Your task to perform on an android device: Open Amazon Image 0: 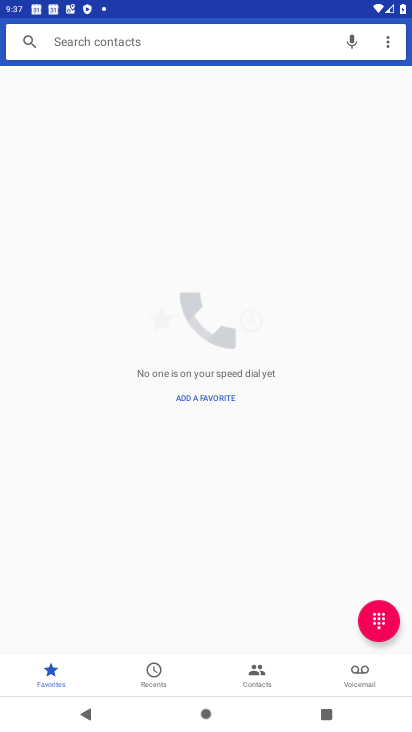
Step 0: press home button
Your task to perform on an android device: Open Amazon Image 1: 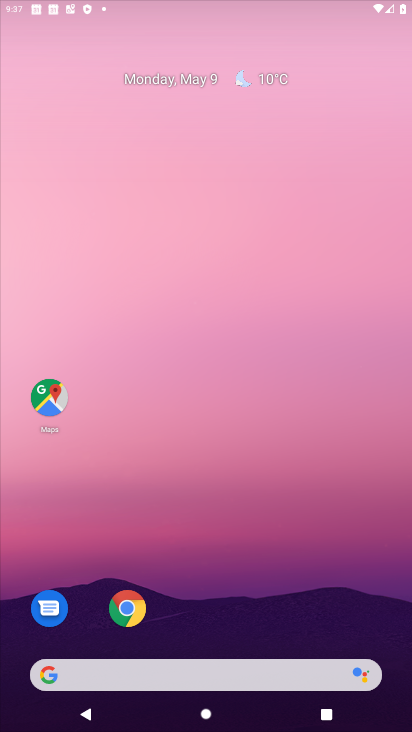
Step 1: click (367, 343)
Your task to perform on an android device: Open Amazon Image 2: 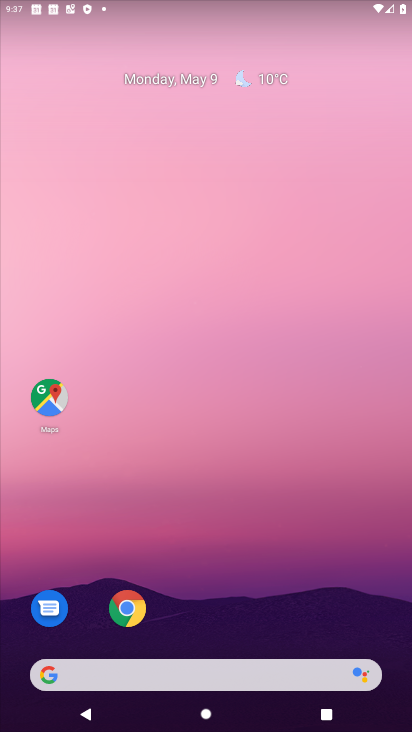
Step 2: drag from (256, 542) to (48, 377)
Your task to perform on an android device: Open Amazon Image 3: 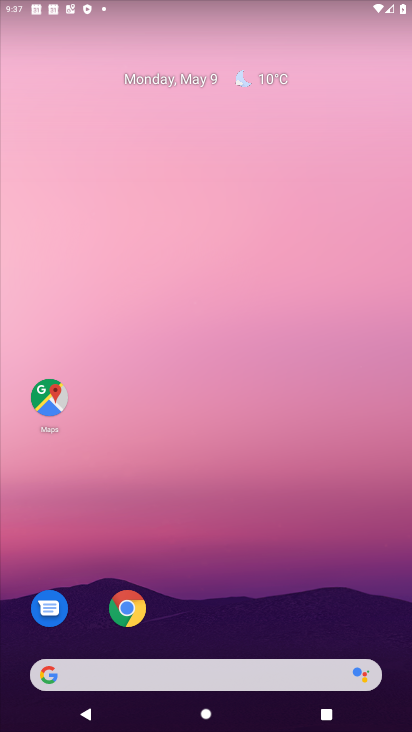
Step 3: drag from (304, 606) to (283, 134)
Your task to perform on an android device: Open Amazon Image 4: 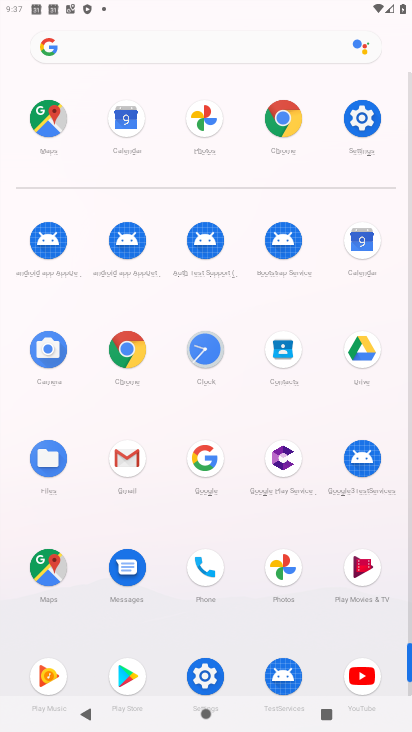
Step 4: click (283, 134)
Your task to perform on an android device: Open Amazon Image 5: 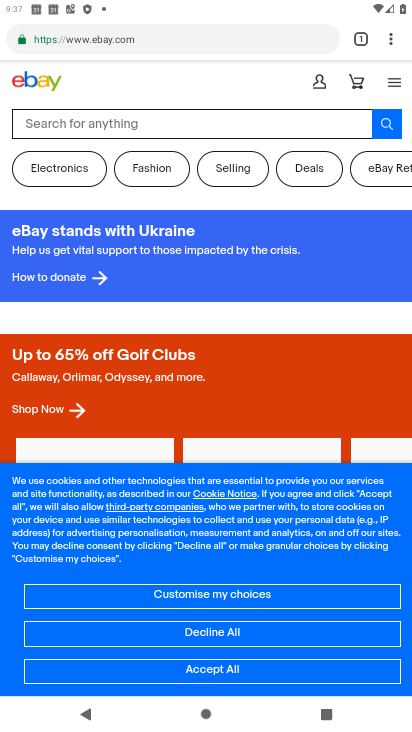
Step 5: click (182, 42)
Your task to perform on an android device: Open Amazon Image 6: 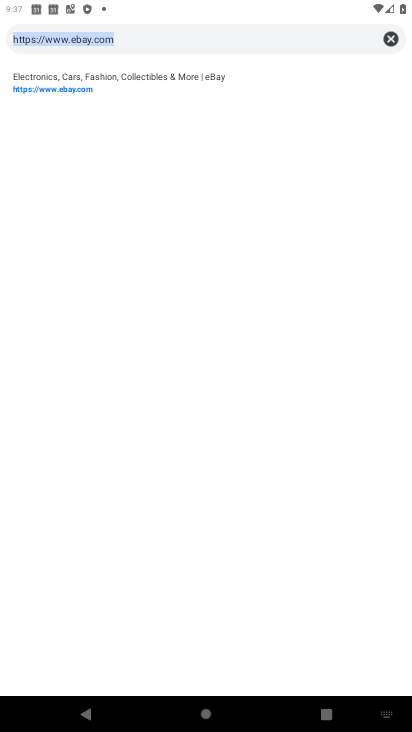
Step 6: click (389, 43)
Your task to perform on an android device: Open Amazon Image 7: 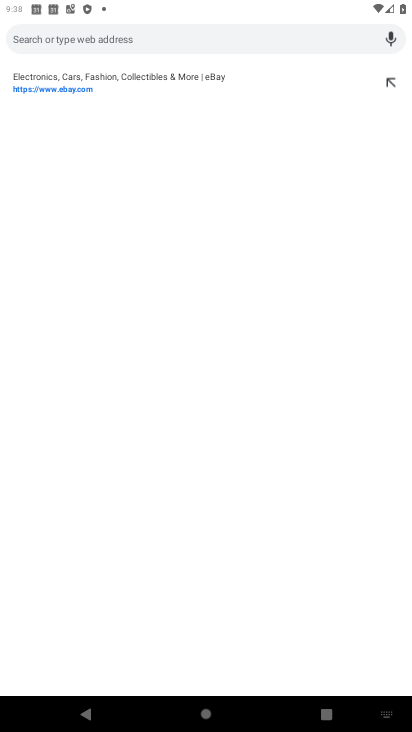
Step 7: type "amazon"
Your task to perform on an android device: Open Amazon Image 8: 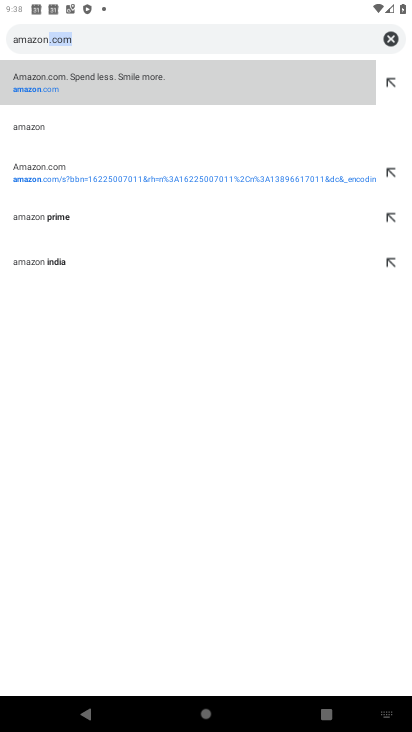
Step 8: click (56, 91)
Your task to perform on an android device: Open Amazon Image 9: 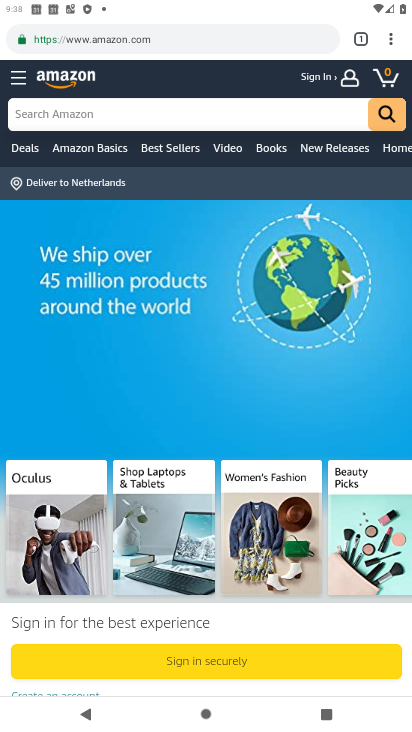
Step 9: task complete